Your task to perform on an android device: Go to settings Image 0: 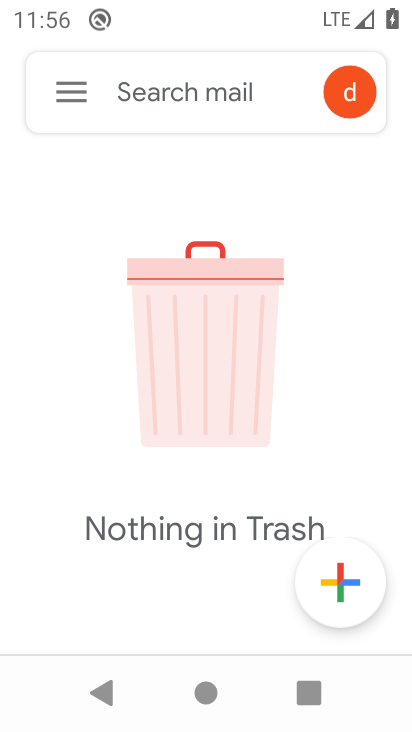
Step 0: press home button
Your task to perform on an android device: Go to settings Image 1: 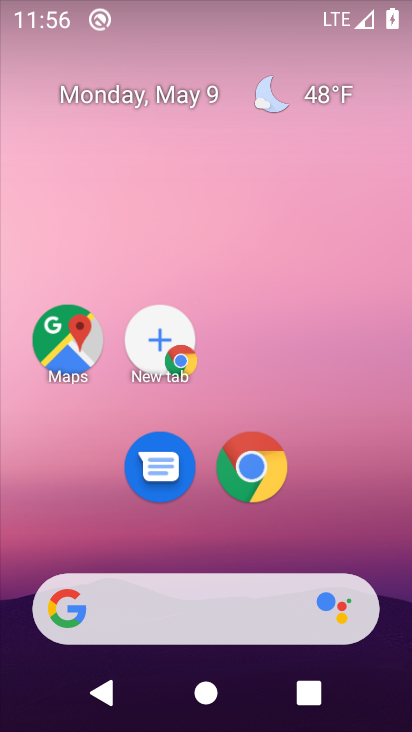
Step 1: drag from (323, 534) to (384, 520)
Your task to perform on an android device: Go to settings Image 2: 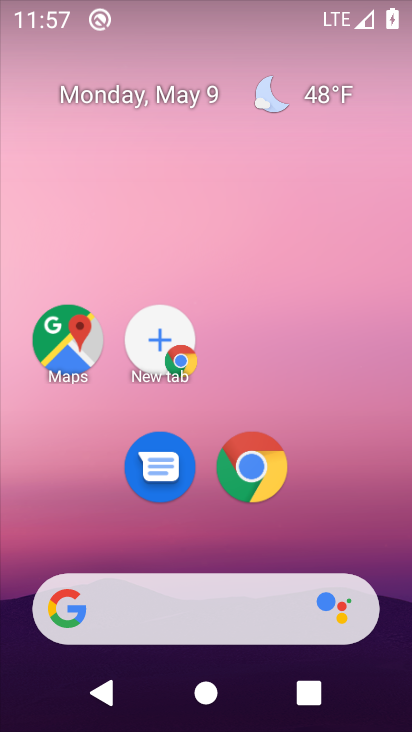
Step 2: click (62, 204)
Your task to perform on an android device: Go to settings Image 3: 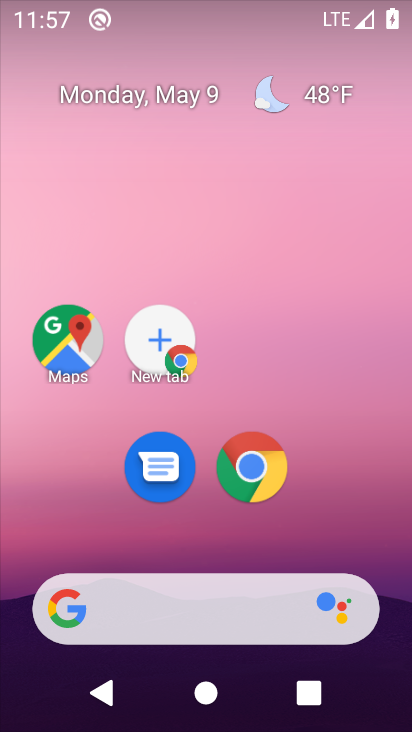
Step 3: click (66, 199)
Your task to perform on an android device: Go to settings Image 4: 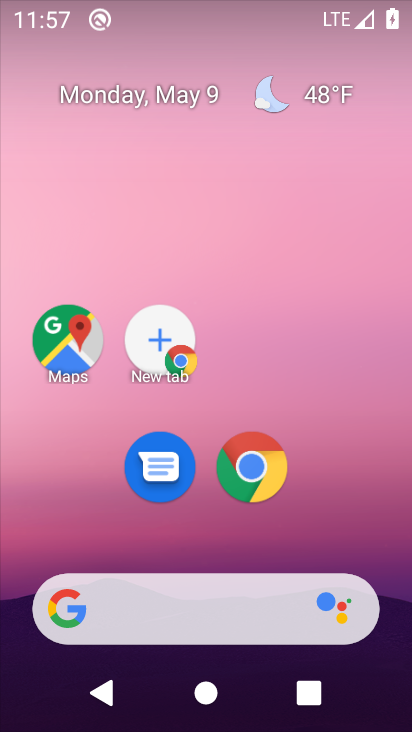
Step 4: drag from (349, 508) to (156, 198)
Your task to perform on an android device: Go to settings Image 5: 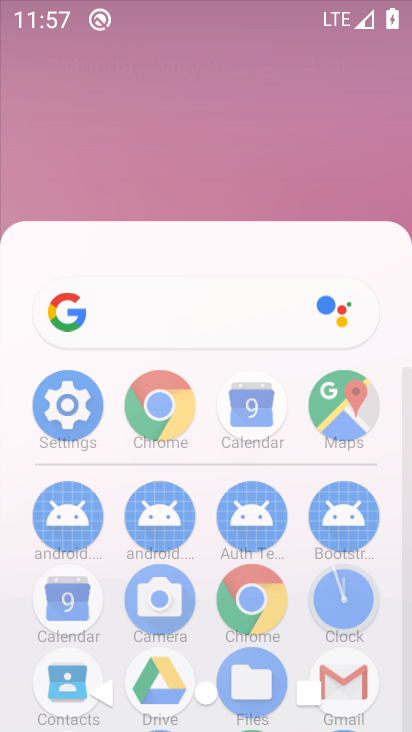
Step 5: drag from (309, 476) to (210, 71)
Your task to perform on an android device: Go to settings Image 6: 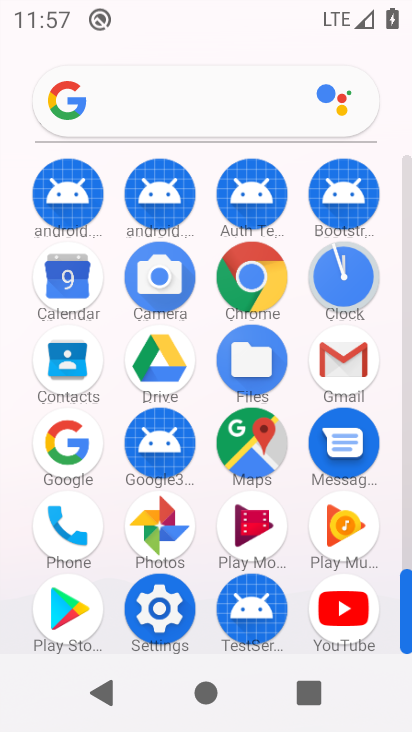
Step 6: click (162, 612)
Your task to perform on an android device: Go to settings Image 7: 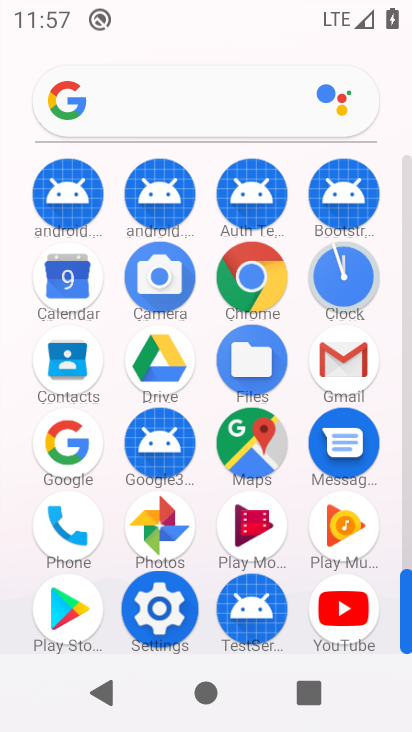
Step 7: click (155, 616)
Your task to perform on an android device: Go to settings Image 8: 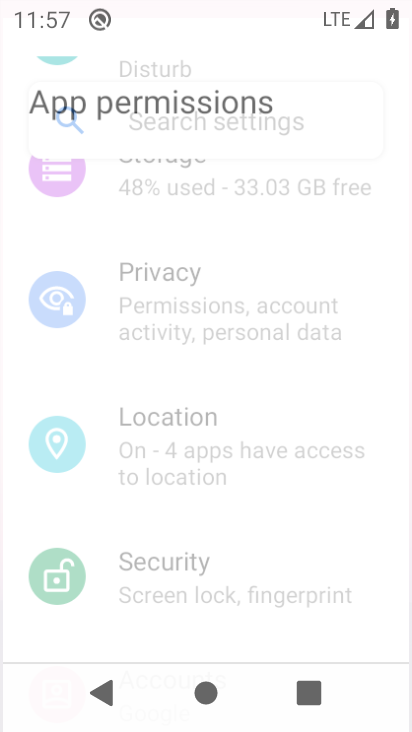
Step 8: click (157, 610)
Your task to perform on an android device: Go to settings Image 9: 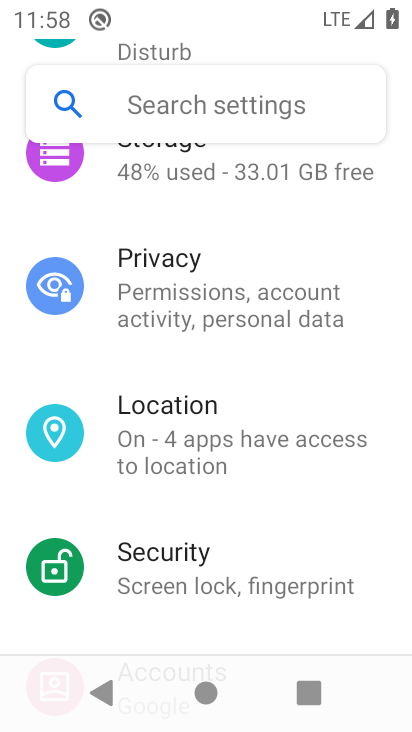
Step 9: task complete